Your task to perform on an android device: Open the calendar app, open the side menu, and click the "Day" option Image 0: 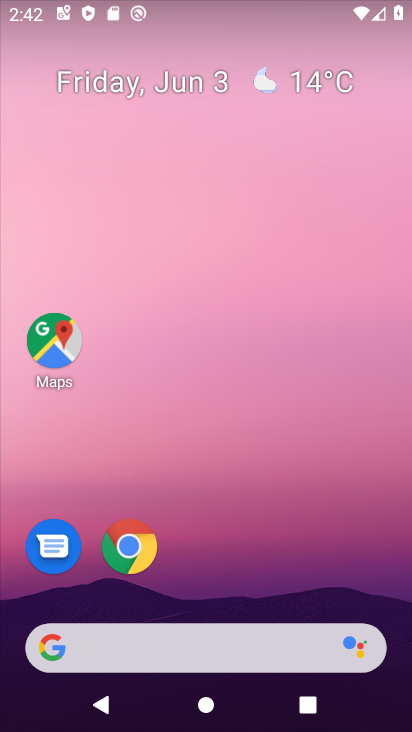
Step 0: drag from (352, 102) to (371, 50)
Your task to perform on an android device: Open the calendar app, open the side menu, and click the "Day" option Image 1: 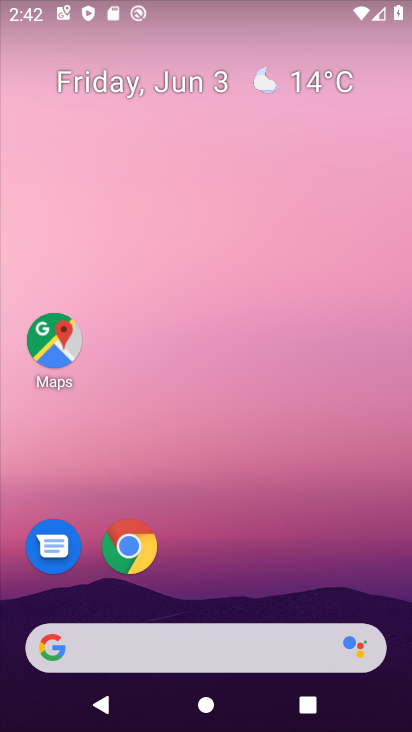
Step 1: drag from (277, 477) to (204, 3)
Your task to perform on an android device: Open the calendar app, open the side menu, and click the "Day" option Image 2: 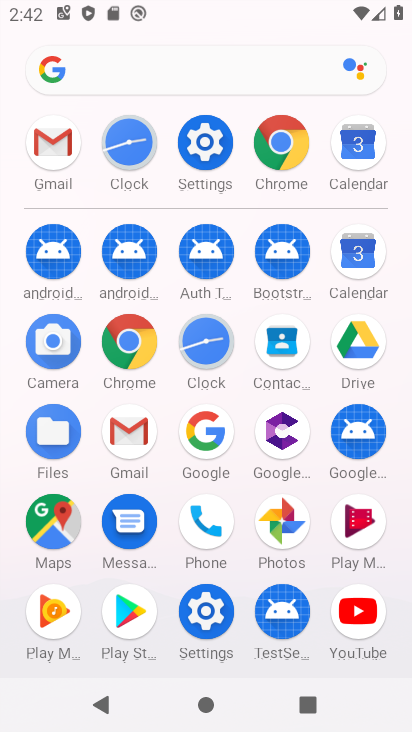
Step 2: click (361, 261)
Your task to perform on an android device: Open the calendar app, open the side menu, and click the "Day" option Image 3: 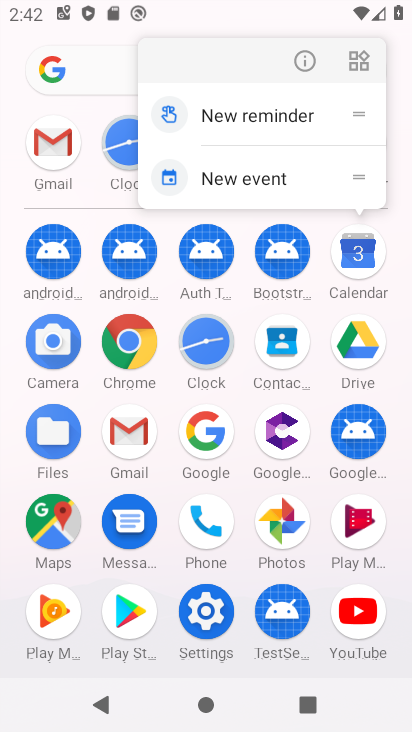
Step 3: click (365, 266)
Your task to perform on an android device: Open the calendar app, open the side menu, and click the "Day" option Image 4: 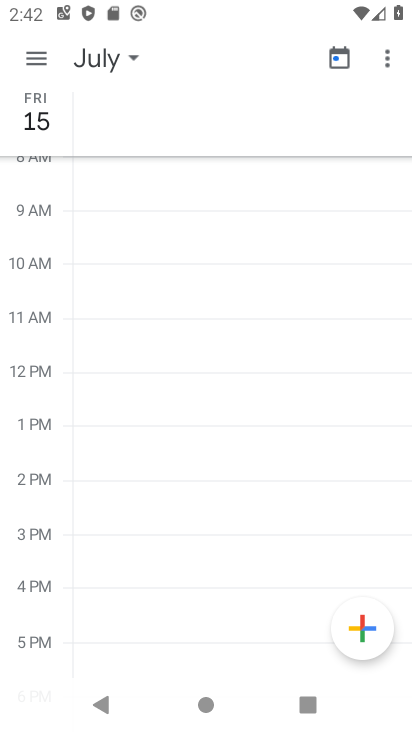
Step 4: click (30, 59)
Your task to perform on an android device: Open the calendar app, open the side menu, and click the "Day" option Image 5: 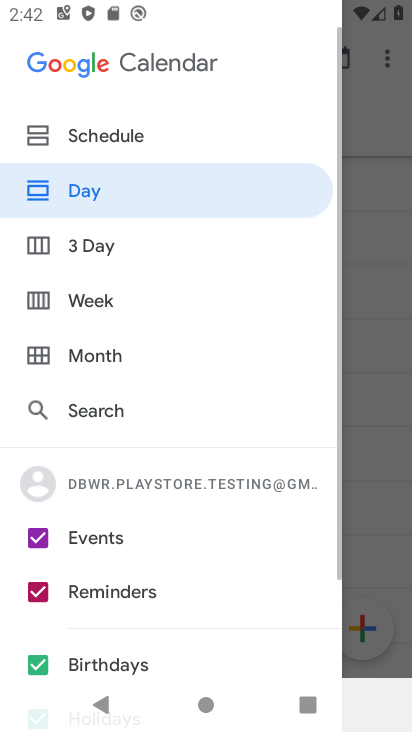
Step 5: click (110, 191)
Your task to perform on an android device: Open the calendar app, open the side menu, and click the "Day" option Image 6: 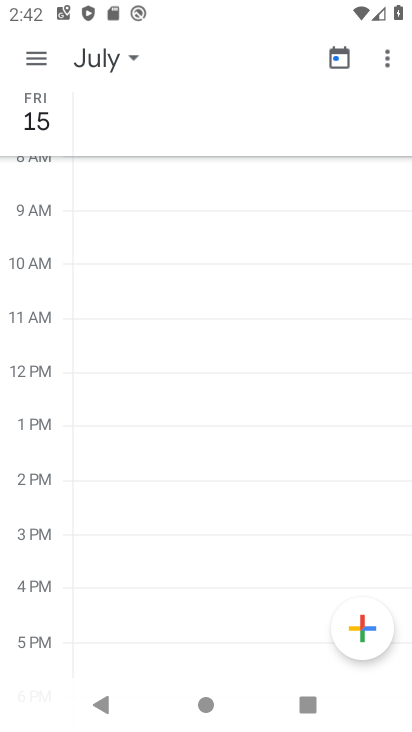
Step 6: task complete